Your task to perform on an android device: open a bookmark in the chrome app Image 0: 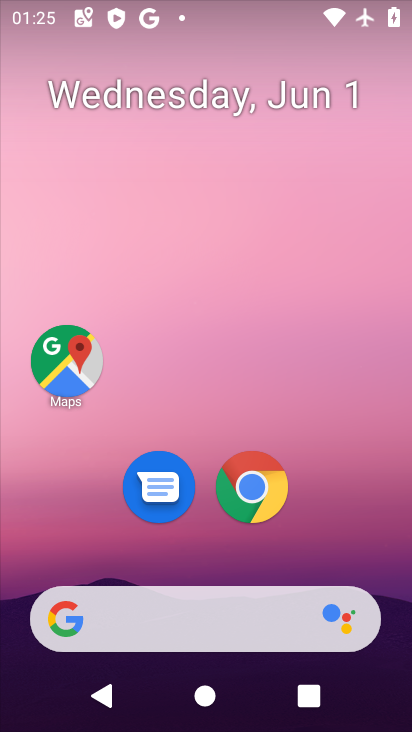
Step 0: click (262, 477)
Your task to perform on an android device: open a bookmark in the chrome app Image 1: 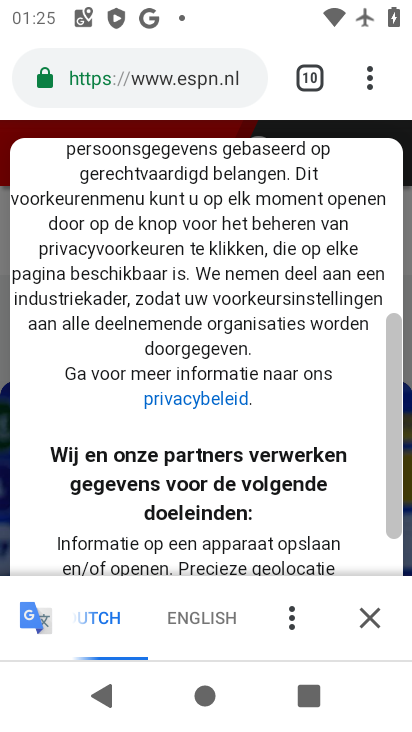
Step 1: click (368, 70)
Your task to perform on an android device: open a bookmark in the chrome app Image 2: 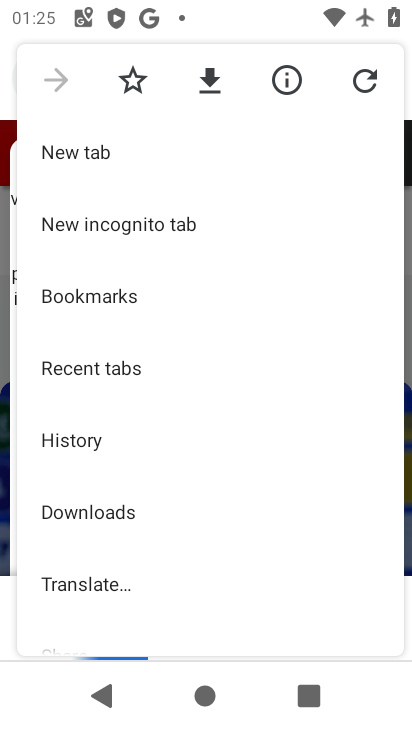
Step 2: click (106, 311)
Your task to perform on an android device: open a bookmark in the chrome app Image 3: 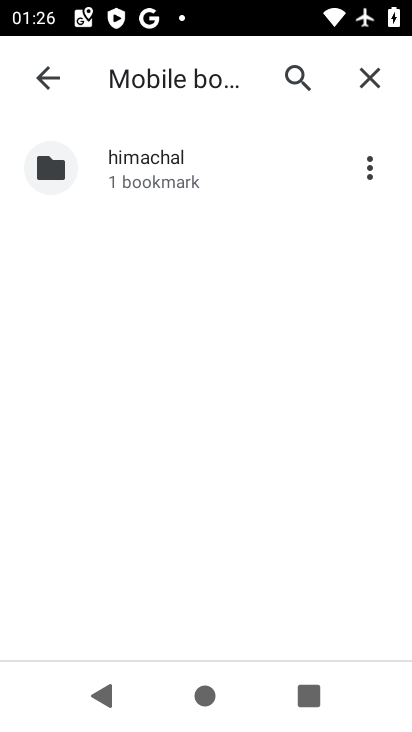
Step 3: task complete